Your task to perform on an android device: turn on wifi Image 0: 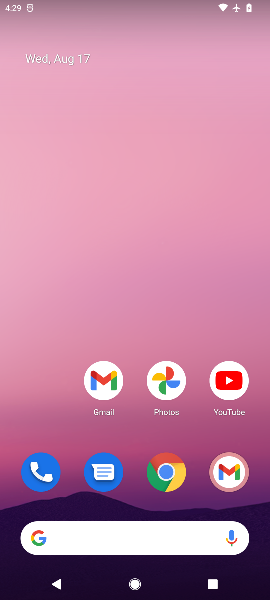
Step 0: drag from (129, 509) to (157, 146)
Your task to perform on an android device: turn on wifi Image 1: 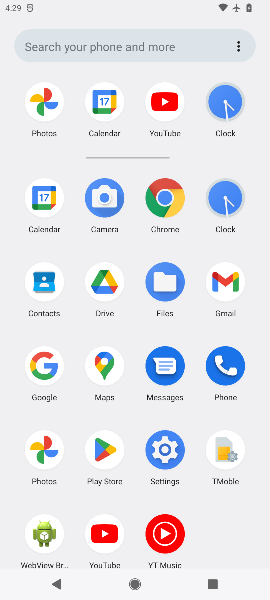
Step 1: click (182, 453)
Your task to perform on an android device: turn on wifi Image 2: 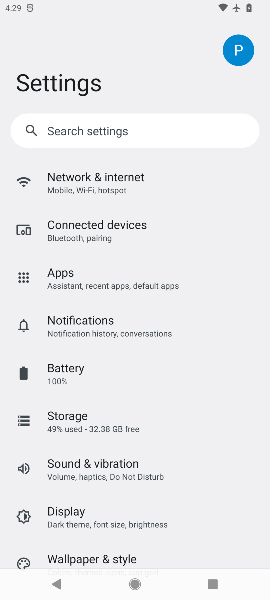
Step 2: click (115, 176)
Your task to perform on an android device: turn on wifi Image 3: 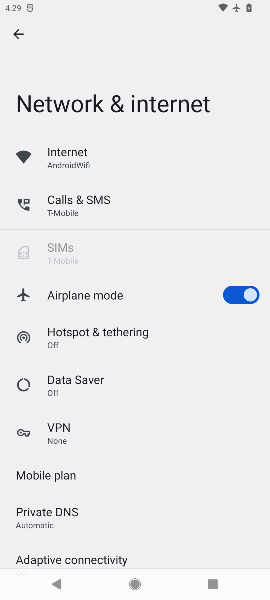
Step 3: click (95, 168)
Your task to perform on an android device: turn on wifi Image 4: 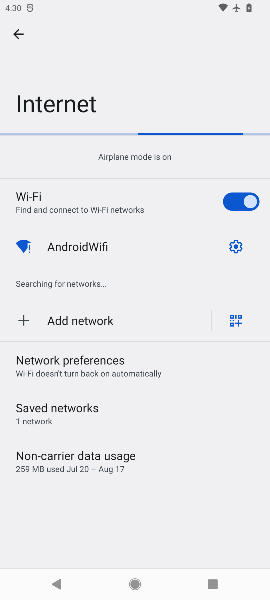
Step 4: task complete